Your task to perform on an android device: Open eBay Image 0: 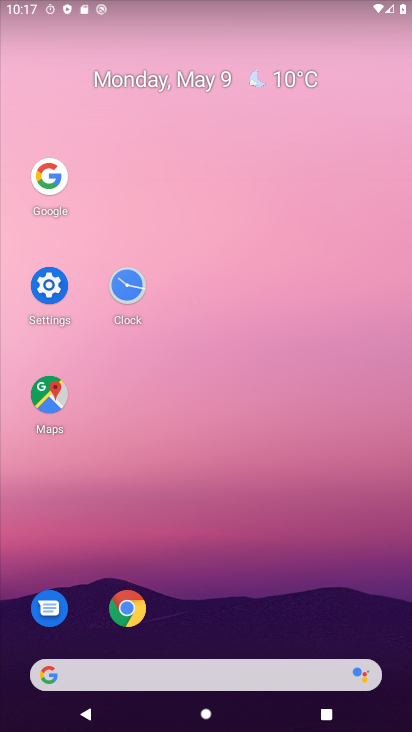
Step 0: click (135, 613)
Your task to perform on an android device: Open eBay Image 1: 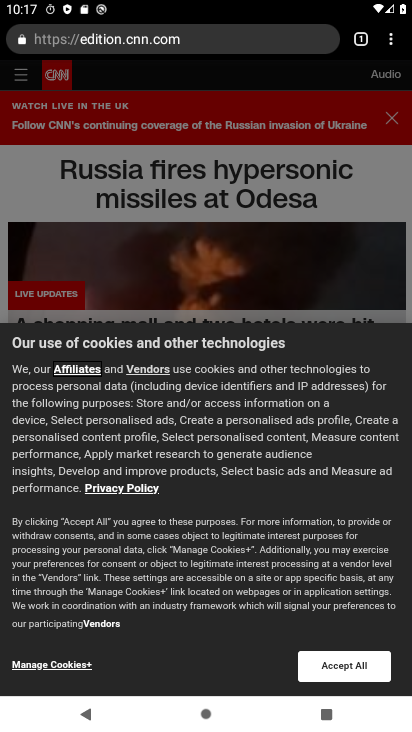
Step 1: click (340, 666)
Your task to perform on an android device: Open eBay Image 2: 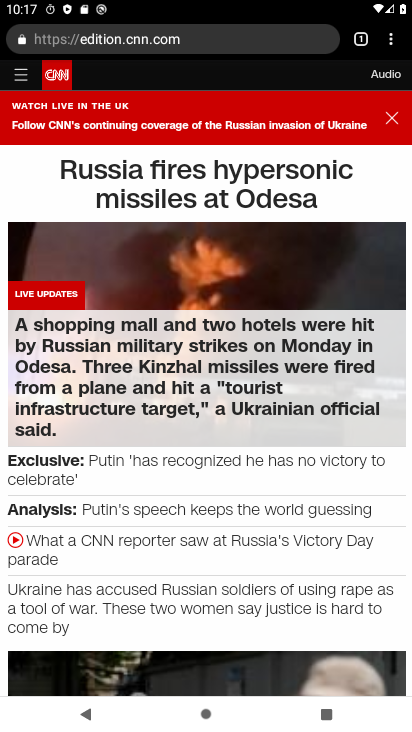
Step 2: click (365, 39)
Your task to perform on an android device: Open eBay Image 3: 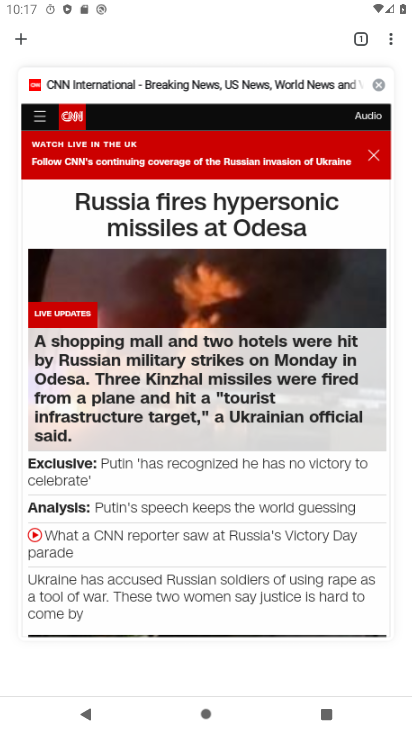
Step 3: click (29, 35)
Your task to perform on an android device: Open eBay Image 4: 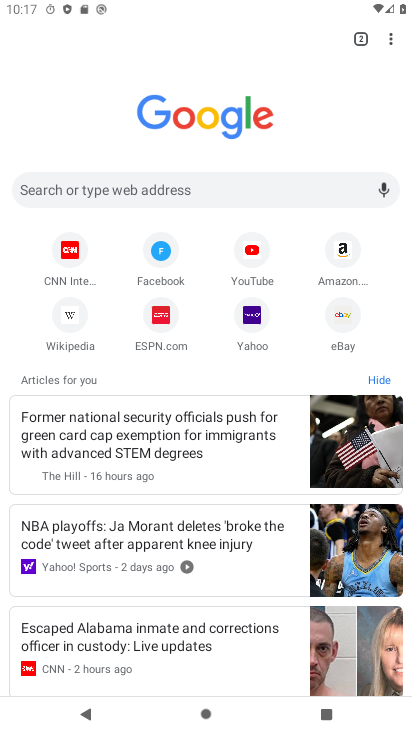
Step 4: click (263, 190)
Your task to perform on an android device: Open eBay Image 5: 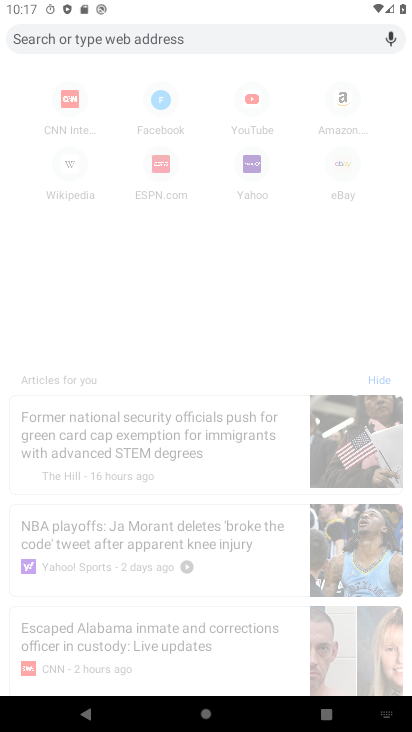
Step 5: type "ebay"
Your task to perform on an android device: Open eBay Image 6: 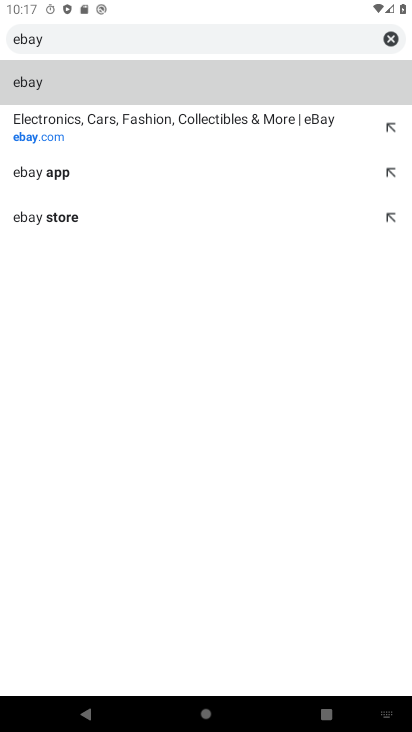
Step 6: click (124, 113)
Your task to perform on an android device: Open eBay Image 7: 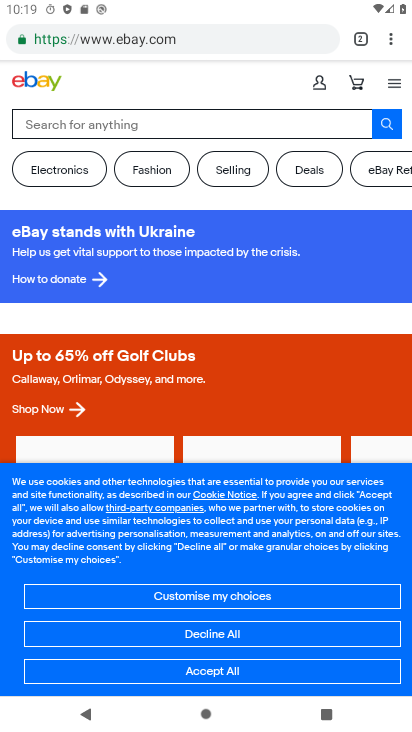
Step 7: task complete